Your task to perform on an android device: set the timer Image 0: 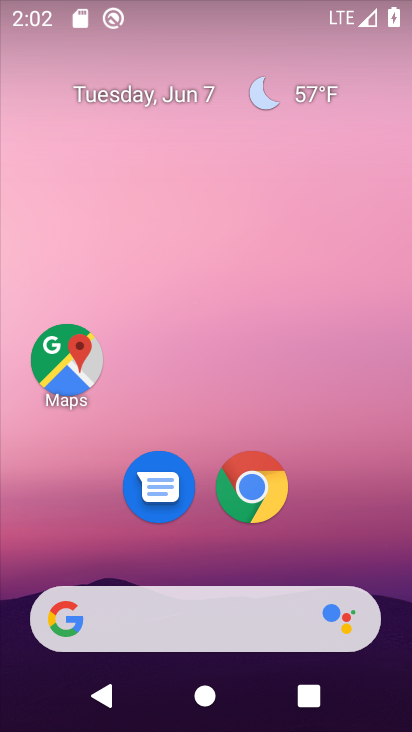
Step 0: drag from (202, 569) to (406, 348)
Your task to perform on an android device: set the timer Image 1: 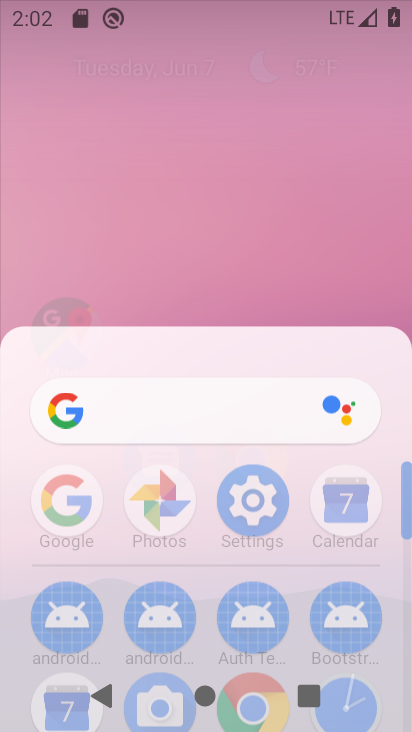
Step 1: click (346, 405)
Your task to perform on an android device: set the timer Image 2: 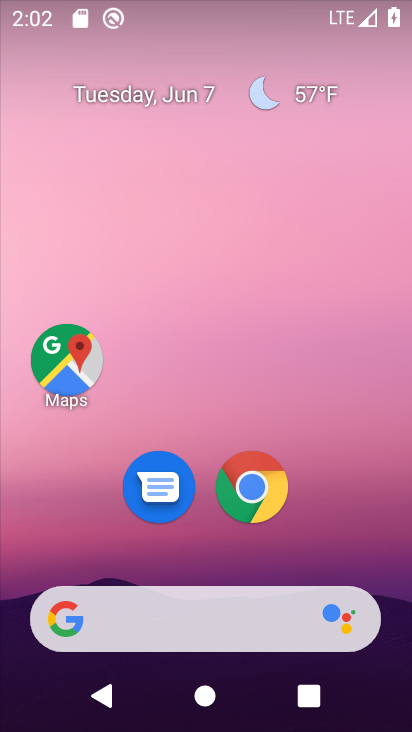
Step 2: drag from (203, 560) to (182, 14)
Your task to perform on an android device: set the timer Image 3: 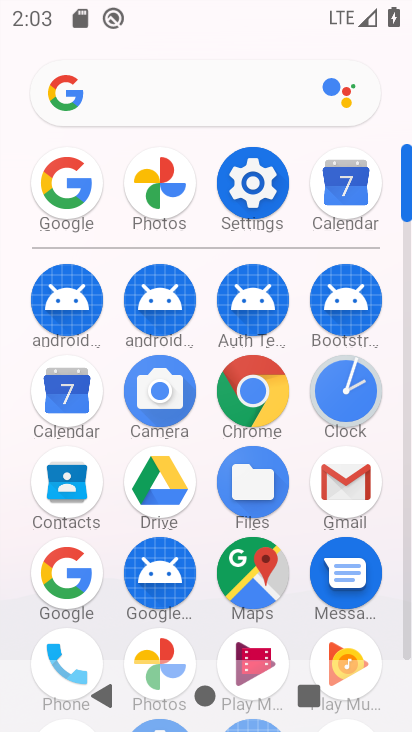
Step 3: click (350, 395)
Your task to perform on an android device: set the timer Image 4: 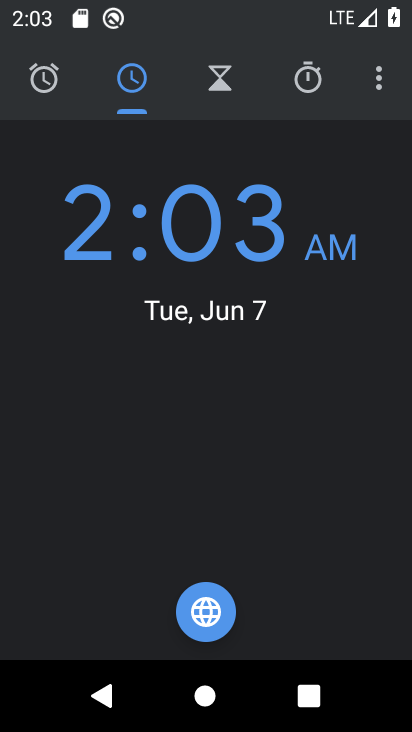
Step 4: click (295, 73)
Your task to perform on an android device: set the timer Image 5: 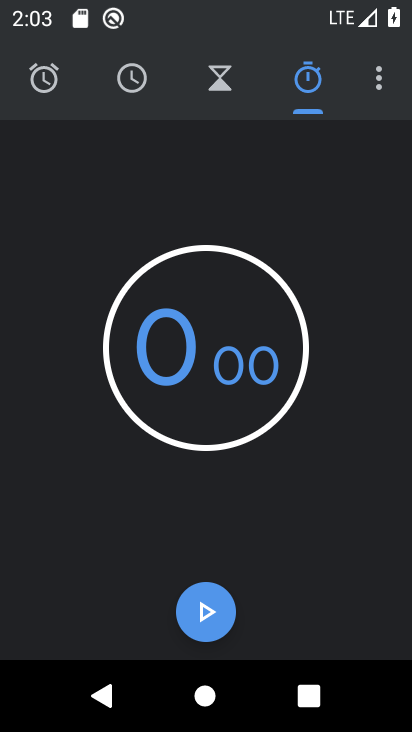
Step 5: task complete